Your task to perform on an android device: toggle data saver in the chrome app Image 0: 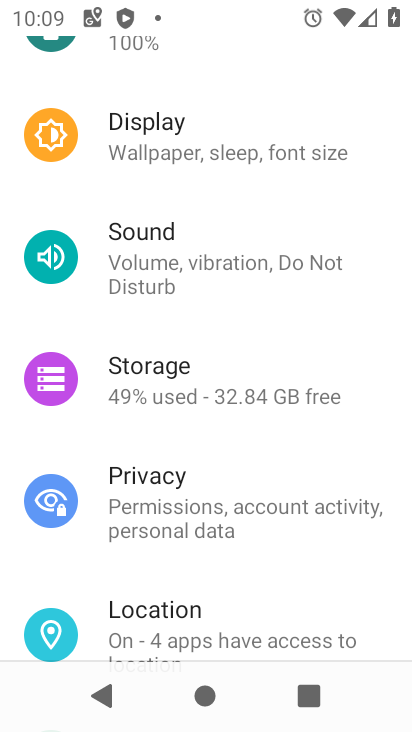
Step 0: press home button
Your task to perform on an android device: toggle data saver in the chrome app Image 1: 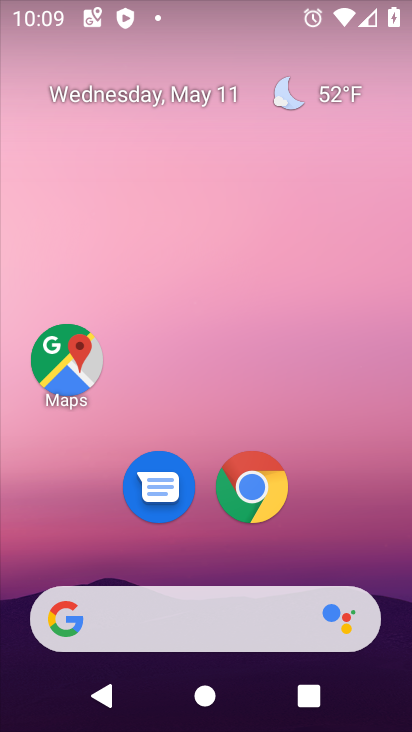
Step 1: click (239, 496)
Your task to perform on an android device: toggle data saver in the chrome app Image 2: 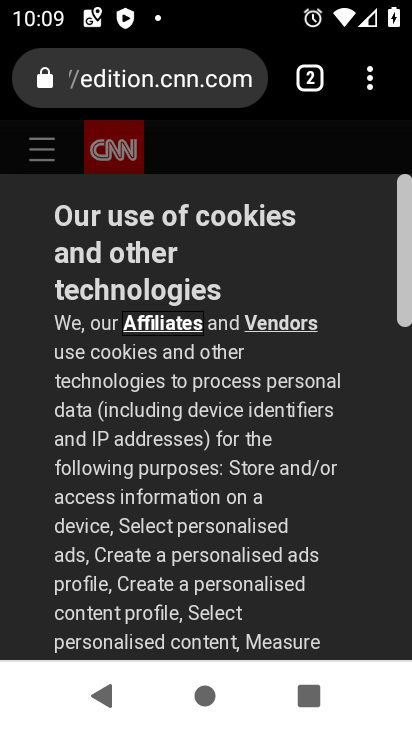
Step 2: drag from (371, 85) to (103, 548)
Your task to perform on an android device: toggle data saver in the chrome app Image 3: 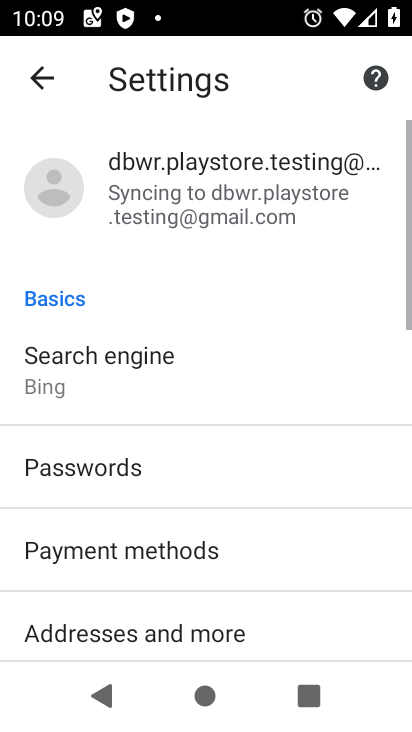
Step 3: drag from (148, 585) to (214, 213)
Your task to perform on an android device: toggle data saver in the chrome app Image 4: 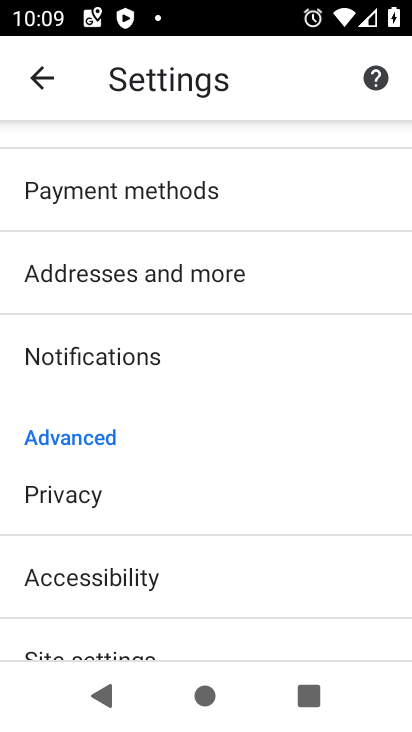
Step 4: drag from (172, 613) to (200, 311)
Your task to perform on an android device: toggle data saver in the chrome app Image 5: 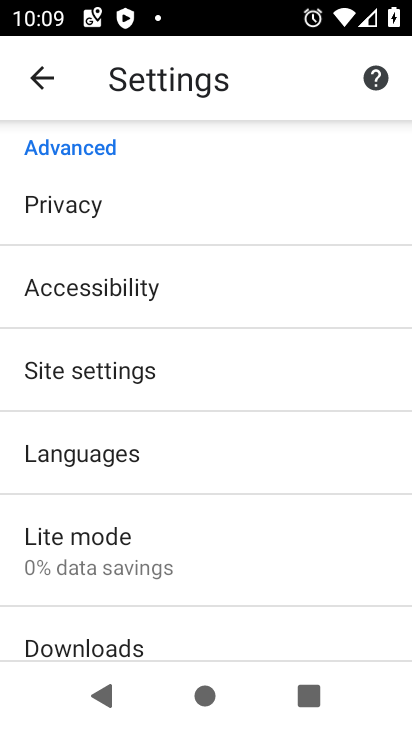
Step 5: click (116, 559)
Your task to perform on an android device: toggle data saver in the chrome app Image 6: 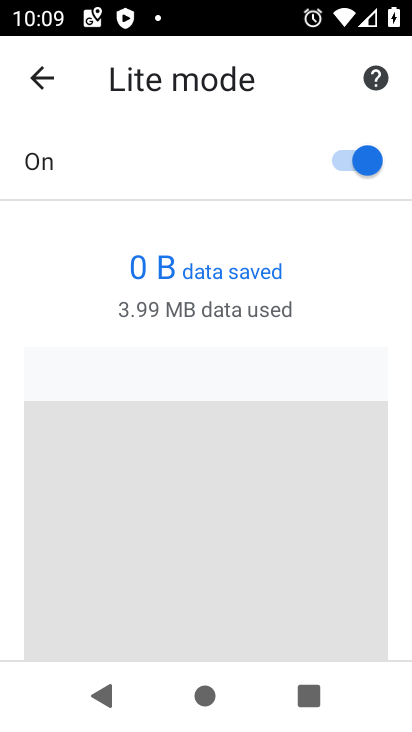
Step 6: click (348, 148)
Your task to perform on an android device: toggle data saver in the chrome app Image 7: 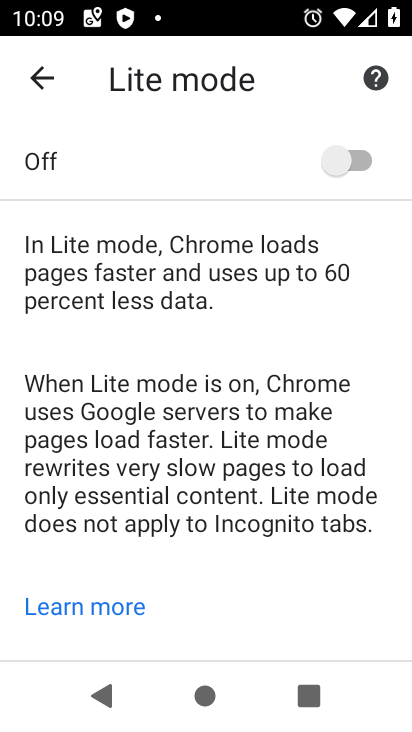
Step 7: task complete